Your task to perform on an android device: toggle translation in the chrome app Image 0: 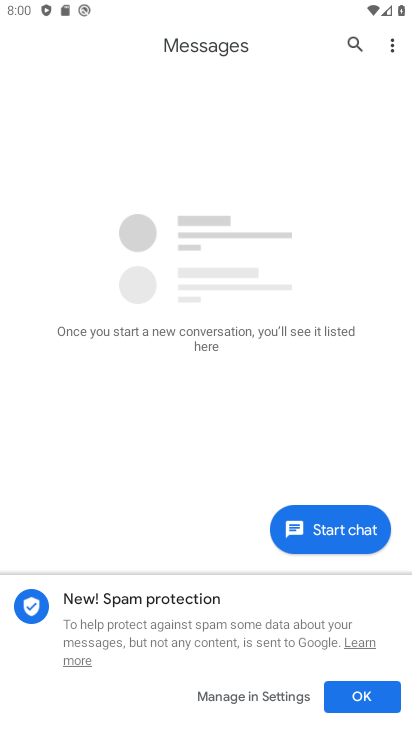
Step 0: press home button
Your task to perform on an android device: toggle translation in the chrome app Image 1: 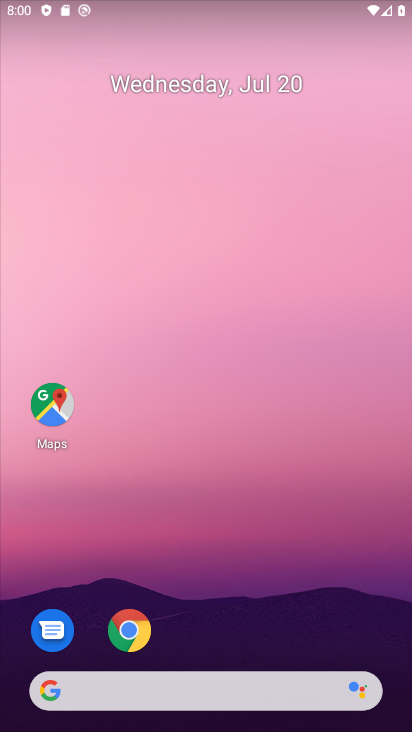
Step 1: click (126, 627)
Your task to perform on an android device: toggle translation in the chrome app Image 2: 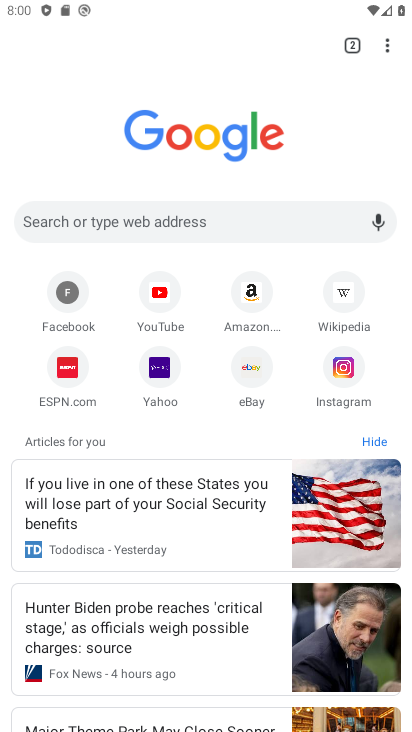
Step 2: click (389, 44)
Your task to perform on an android device: toggle translation in the chrome app Image 3: 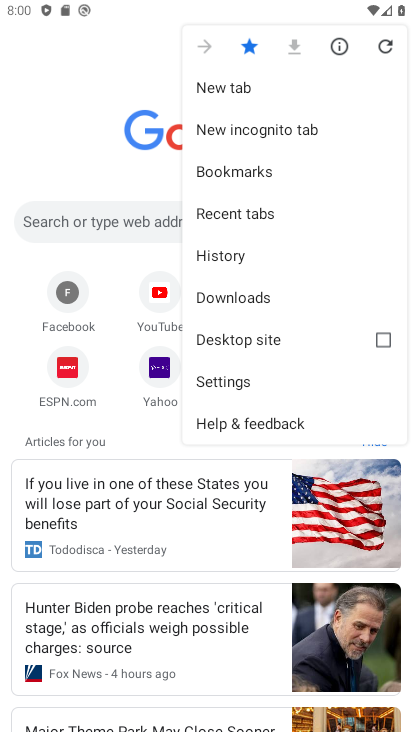
Step 3: click (239, 382)
Your task to perform on an android device: toggle translation in the chrome app Image 4: 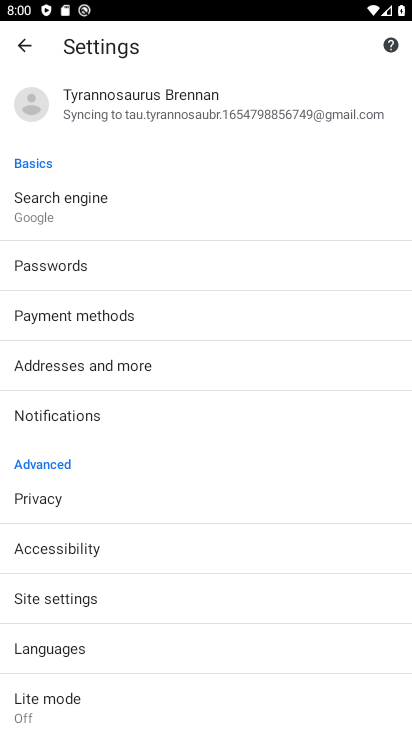
Step 4: click (70, 645)
Your task to perform on an android device: toggle translation in the chrome app Image 5: 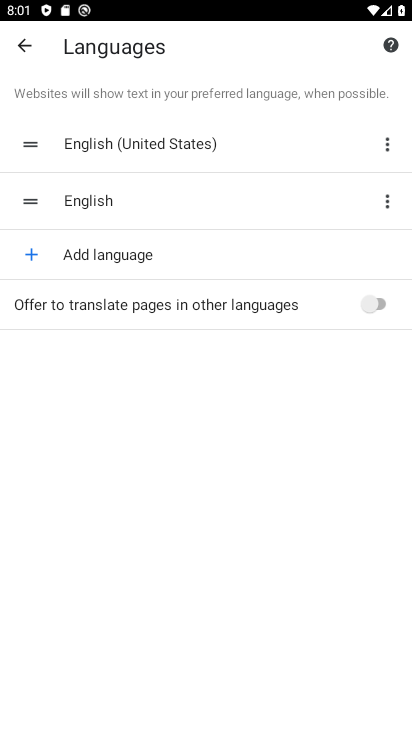
Step 5: click (379, 302)
Your task to perform on an android device: toggle translation in the chrome app Image 6: 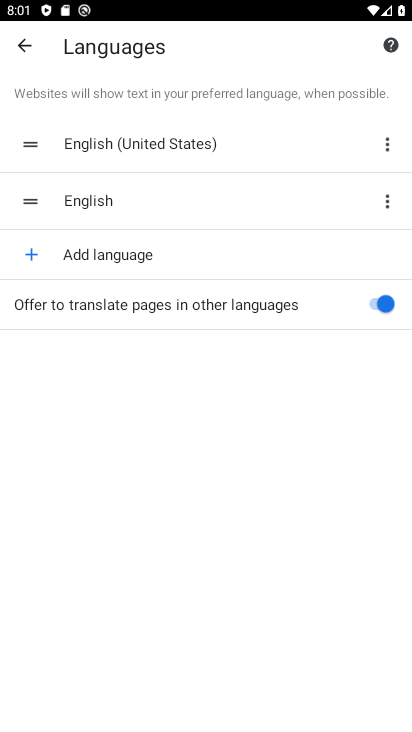
Step 6: task complete